Your task to perform on an android device: delete the emails in spam in the gmail app Image 0: 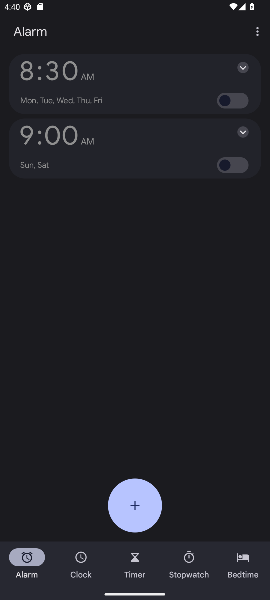
Step 0: press home button
Your task to perform on an android device: delete the emails in spam in the gmail app Image 1: 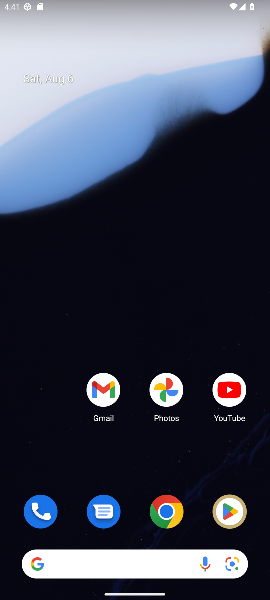
Step 1: drag from (129, 445) to (187, 27)
Your task to perform on an android device: delete the emails in spam in the gmail app Image 2: 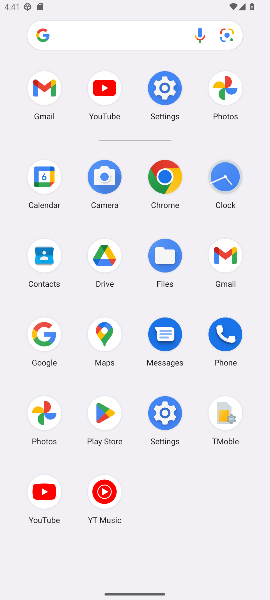
Step 2: click (228, 264)
Your task to perform on an android device: delete the emails in spam in the gmail app Image 3: 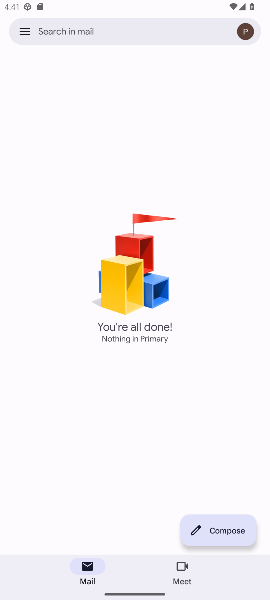
Step 3: click (30, 35)
Your task to perform on an android device: delete the emails in spam in the gmail app Image 4: 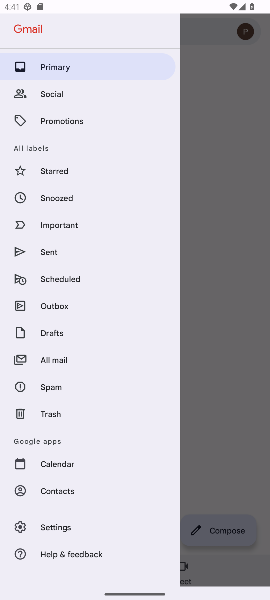
Step 4: click (60, 390)
Your task to perform on an android device: delete the emails in spam in the gmail app Image 5: 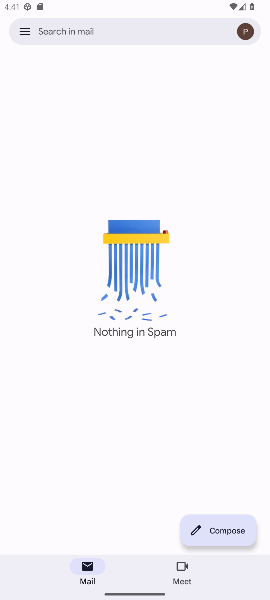
Step 5: task complete